Your task to perform on an android device: turn on priority inbox in the gmail app Image 0: 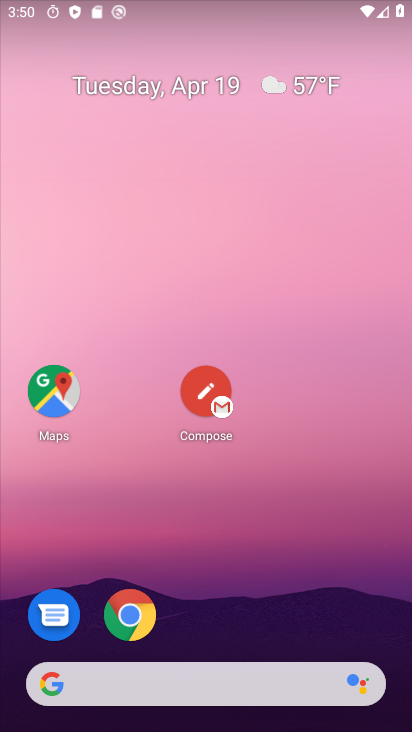
Step 0: drag from (281, 620) to (284, 56)
Your task to perform on an android device: turn on priority inbox in the gmail app Image 1: 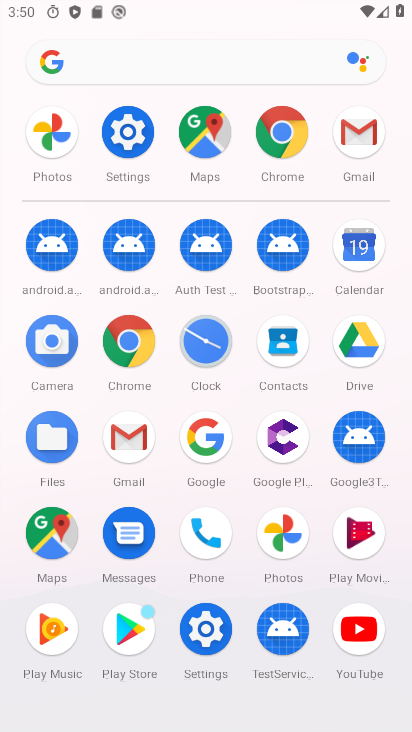
Step 1: click (130, 441)
Your task to perform on an android device: turn on priority inbox in the gmail app Image 2: 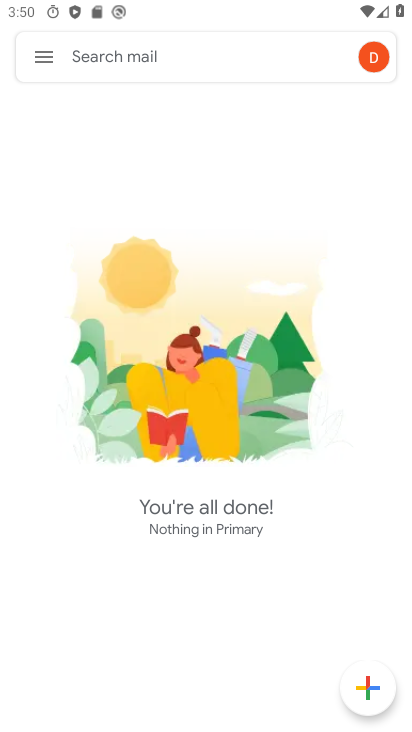
Step 2: click (36, 56)
Your task to perform on an android device: turn on priority inbox in the gmail app Image 3: 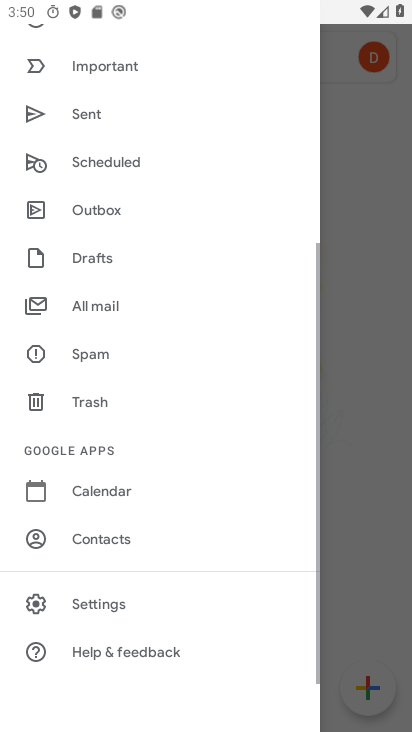
Step 3: drag from (199, 613) to (219, 296)
Your task to perform on an android device: turn on priority inbox in the gmail app Image 4: 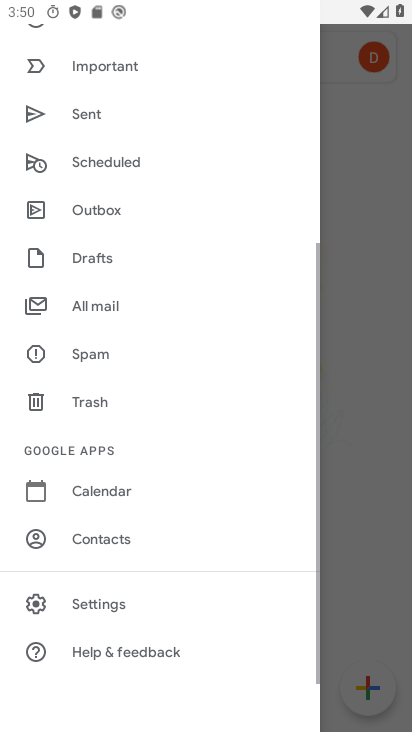
Step 4: click (149, 604)
Your task to perform on an android device: turn on priority inbox in the gmail app Image 5: 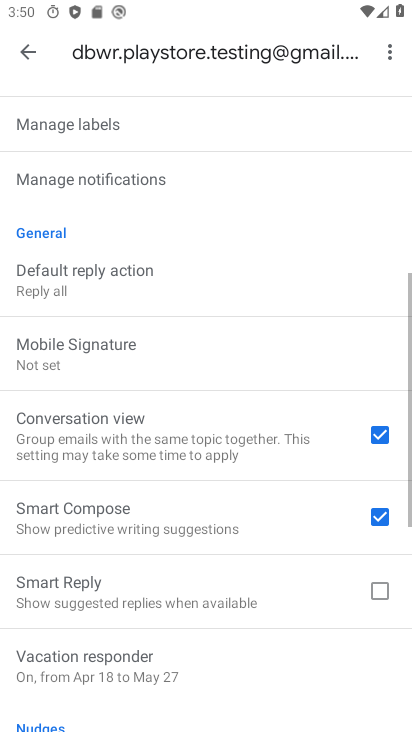
Step 5: drag from (149, 603) to (120, 728)
Your task to perform on an android device: turn on priority inbox in the gmail app Image 6: 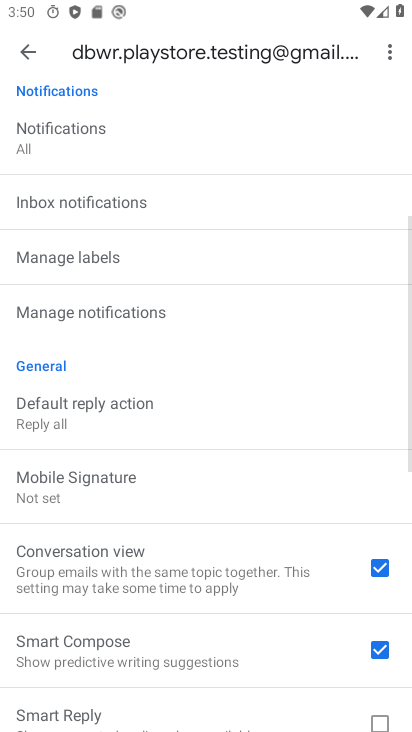
Step 6: drag from (167, 265) to (142, 609)
Your task to perform on an android device: turn on priority inbox in the gmail app Image 7: 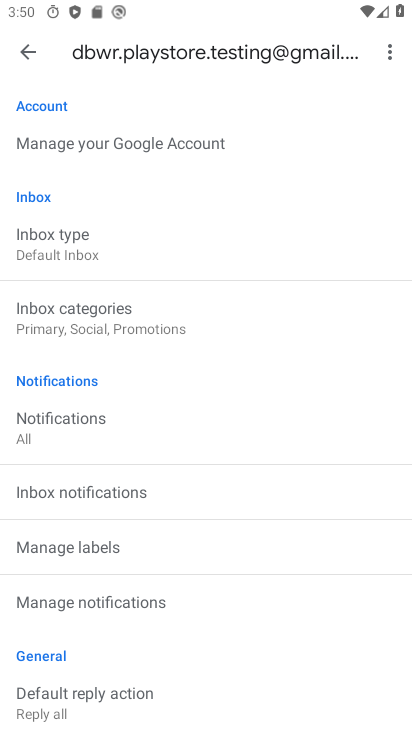
Step 7: click (135, 263)
Your task to perform on an android device: turn on priority inbox in the gmail app Image 8: 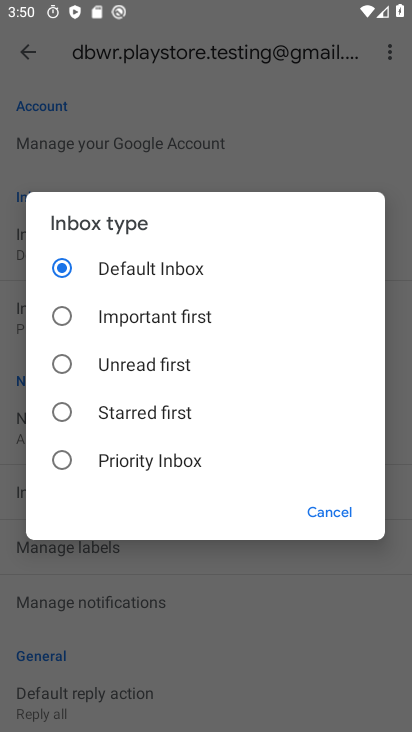
Step 8: click (119, 459)
Your task to perform on an android device: turn on priority inbox in the gmail app Image 9: 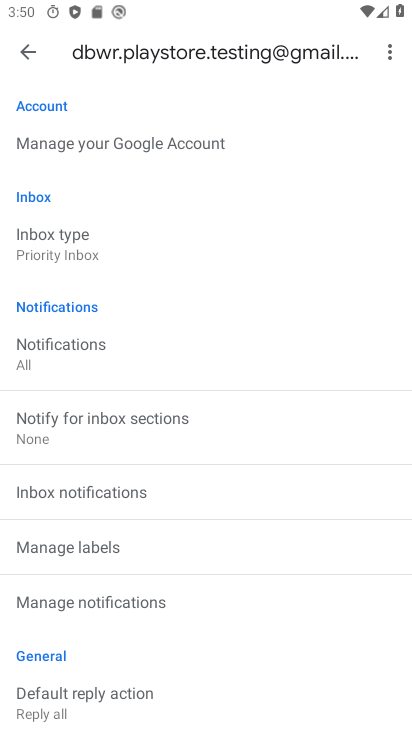
Step 9: task complete